Your task to perform on an android device: toggle notification dots Image 0: 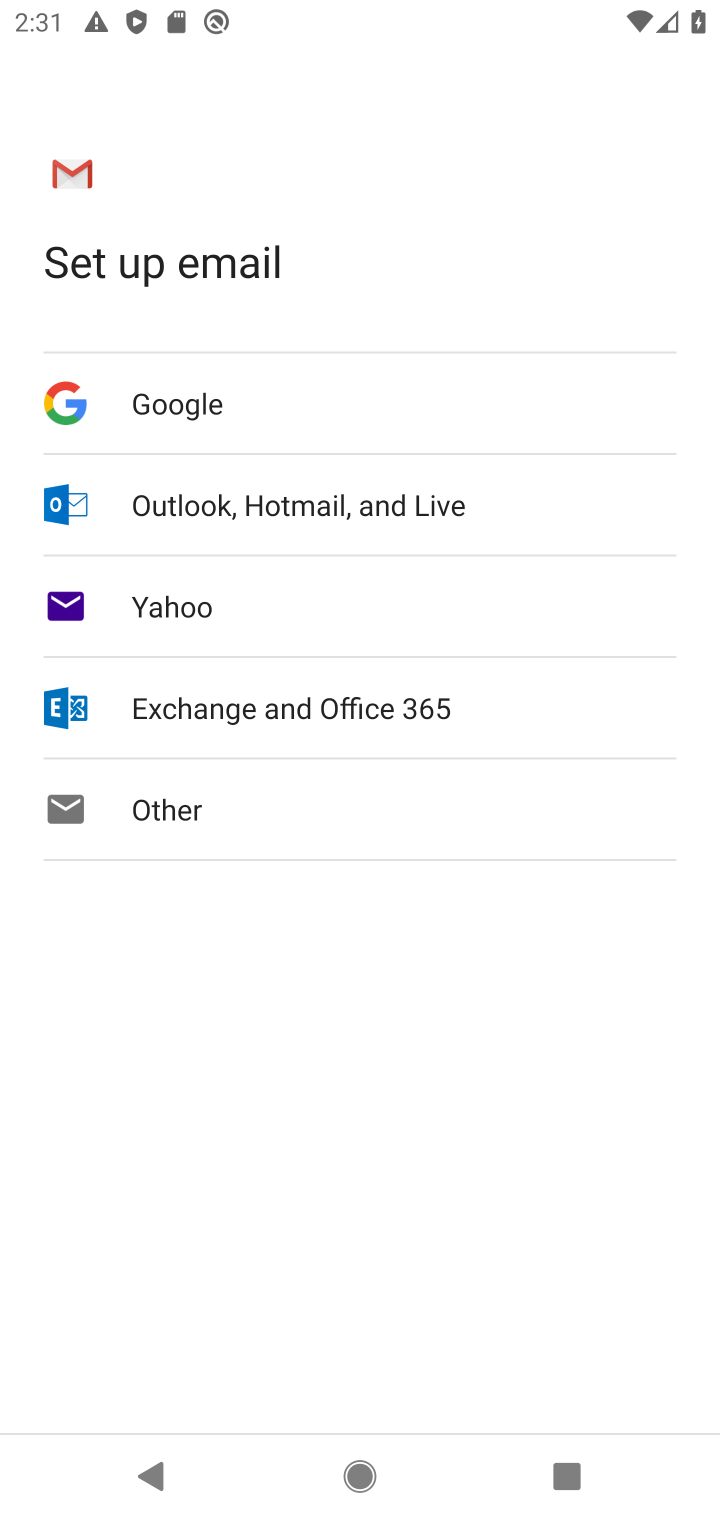
Step 0: click (473, 1177)
Your task to perform on an android device: toggle notification dots Image 1: 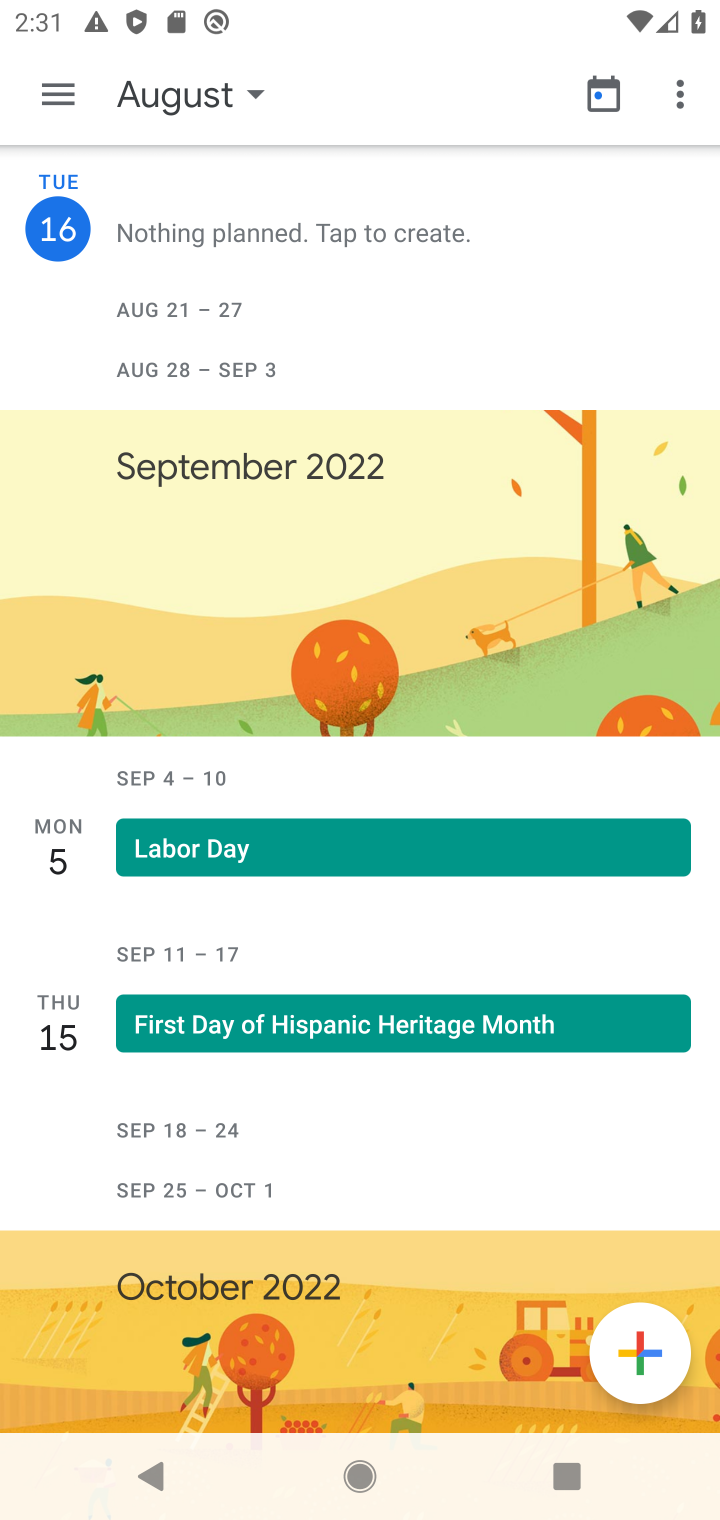
Step 1: task complete